Your task to perform on an android device: What is the news today? Image 0: 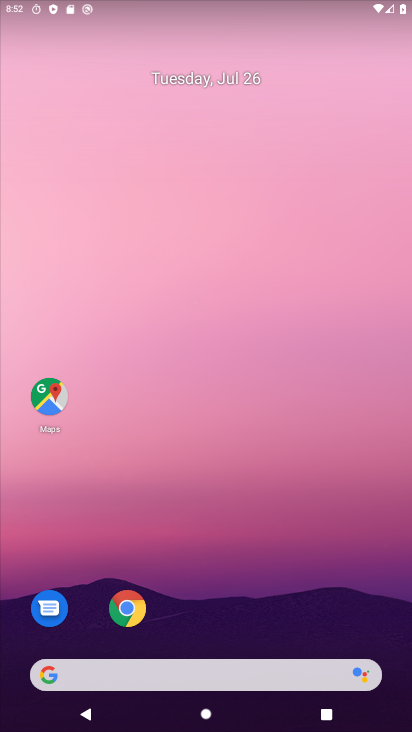
Step 0: click (206, 672)
Your task to perform on an android device: What is the news today? Image 1: 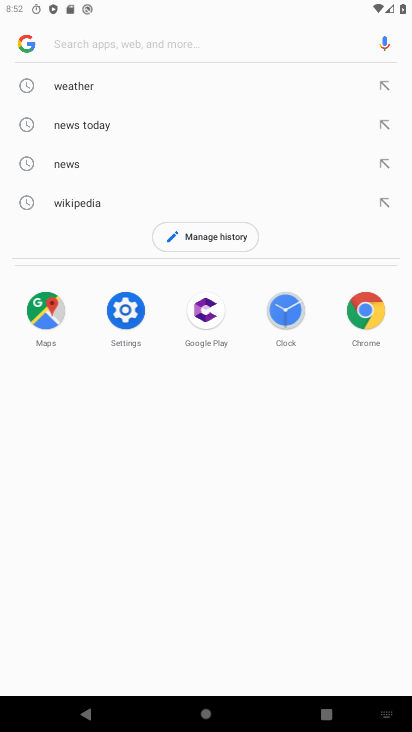
Step 1: click (78, 126)
Your task to perform on an android device: What is the news today? Image 2: 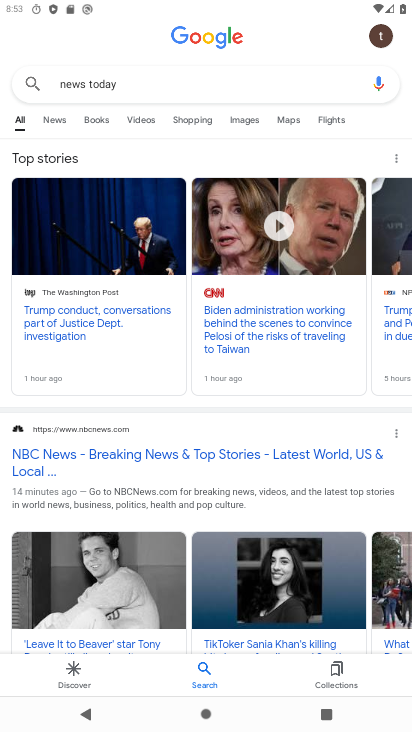
Step 2: task complete